Your task to perform on an android device: Open the calendar and show me this week's events? Image 0: 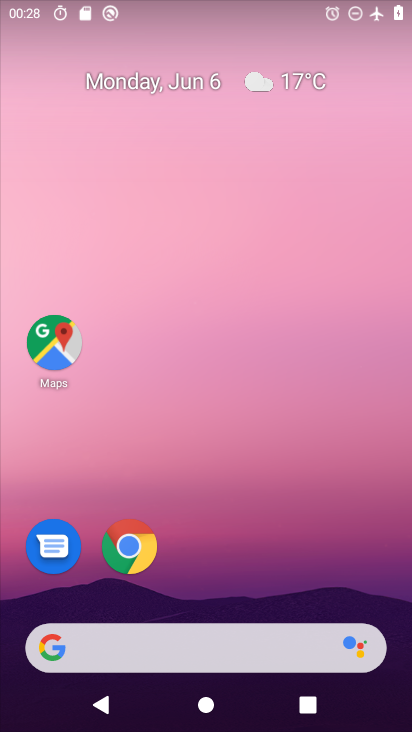
Step 0: click (238, 79)
Your task to perform on an android device: Open the calendar and show me this week's events? Image 1: 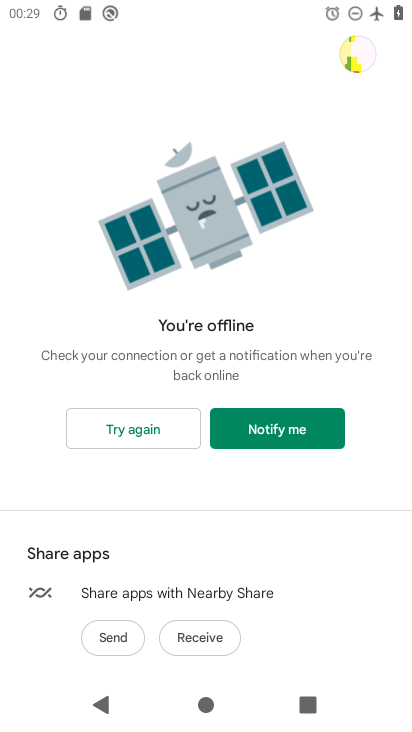
Step 1: drag from (186, 572) to (260, 56)
Your task to perform on an android device: Open the calendar and show me this week's events? Image 2: 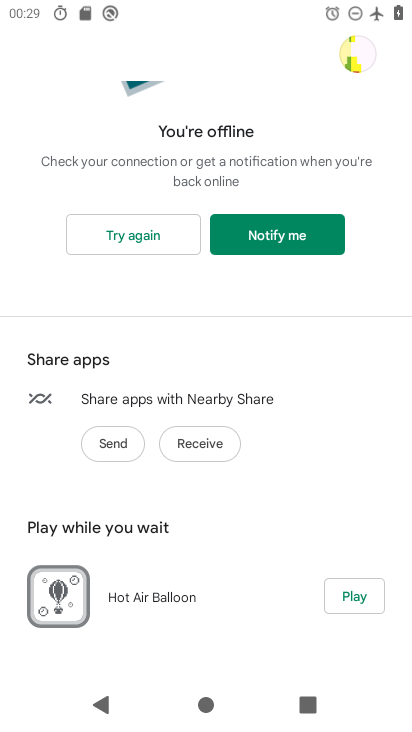
Step 2: press home button
Your task to perform on an android device: Open the calendar and show me this week's events? Image 3: 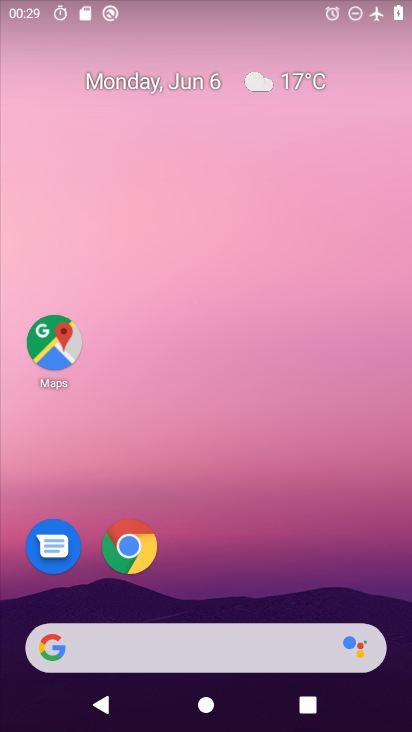
Step 3: drag from (180, 594) to (233, 165)
Your task to perform on an android device: Open the calendar and show me this week's events? Image 4: 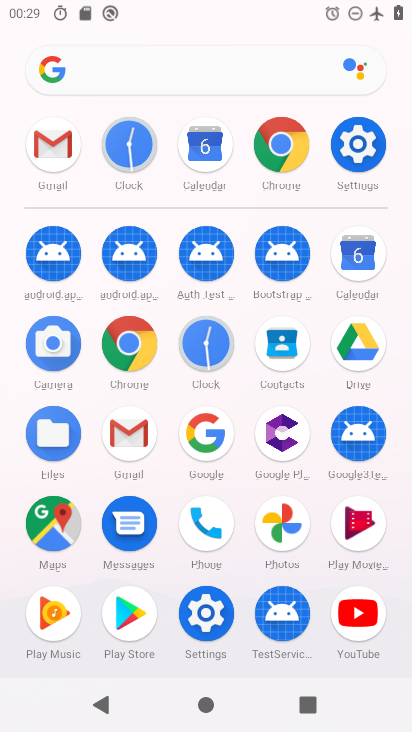
Step 4: click (359, 253)
Your task to perform on an android device: Open the calendar and show me this week's events? Image 5: 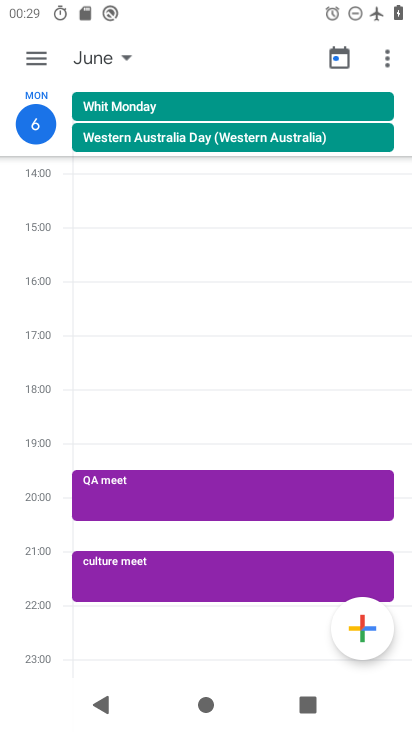
Step 5: click (105, 43)
Your task to perform on an android device: Open the calendar and show me this week's events? Image 6: 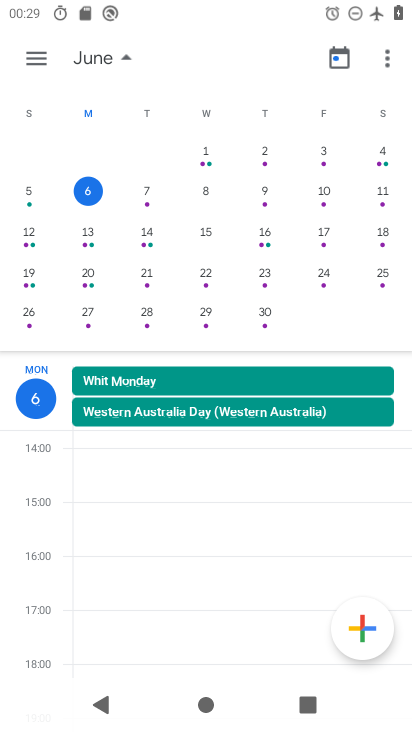
Step 6: click (319, 197)
Your task to perform on an android device: Open the calendar and show me this week's events? Image 7: 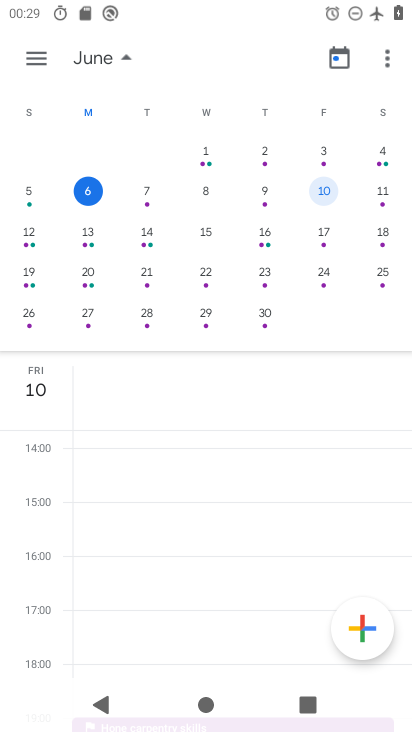
Step 7: task complete